Your task to perform on an android device: Open the web browser Image 0: 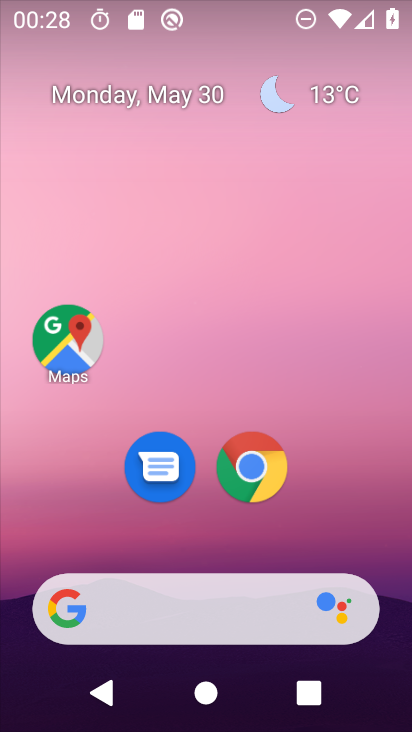
Step 0: click (240, 484)
Your task to perform on an android device: Open the web browser Image 1: 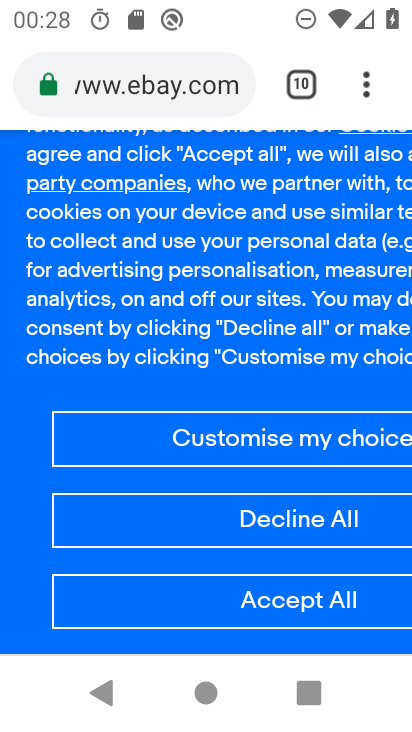
Step 1: task complete